Your task to perform on an android device: Open Google Chrome and click the shortcut for Amazon.com Image 0: 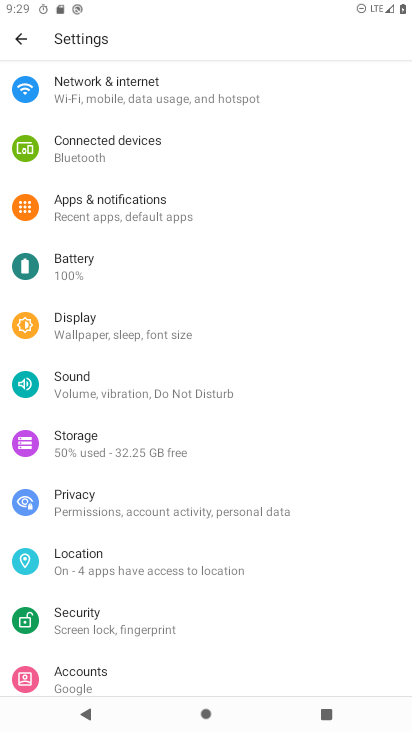
Step 0: press home button
Your task to perform on an android device: Open Google Chrome and click the shortcut for Amazon.com Image 1: 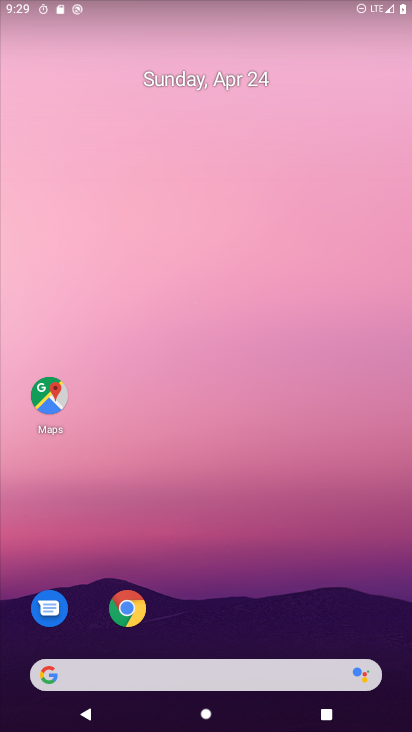
Step 1: click (127, 611)
Your task to perform on an android device: Open Google Chrome and click the shortcut for Amazon.com Image 2: 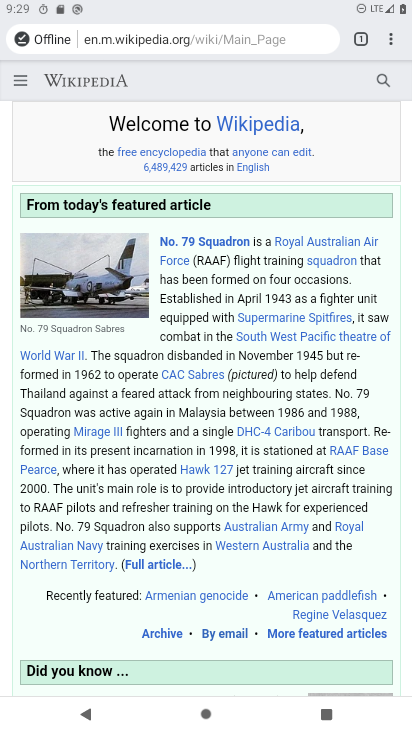
Step 2: click (391, 34)
Your task to perform on an android device: Open Google Chrome and click the shortcut for Amazon.com Image 3: 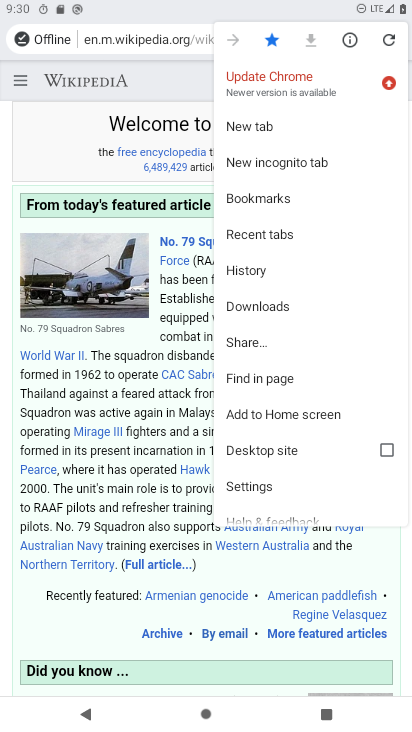
Step 3: click (296, 119)
Your task to perform on an android device: Open Google Chrome and click the shortcut for Amazon.com Image 4: 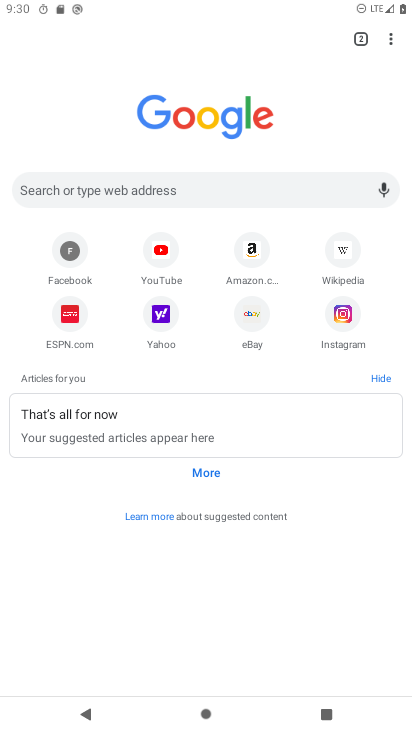
Step 4: click (255, 243)
Your task to perform on an android device: Open Google Chrome and click the shortcut for Amazon.com Image 5: 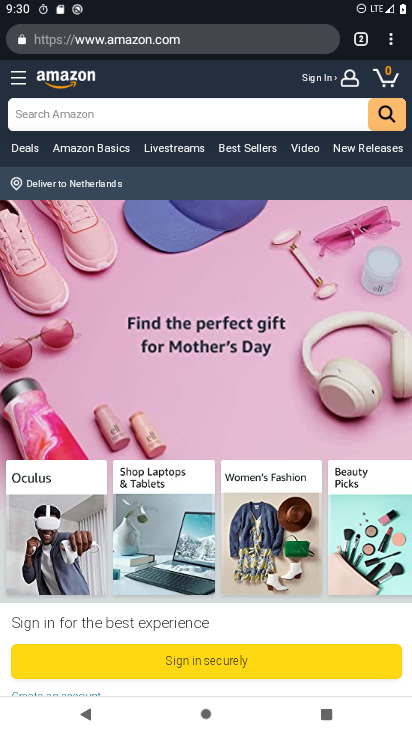
Step 5: task complete